Your task to perform on an android device: Show me popular videos on Youtube Image 0: 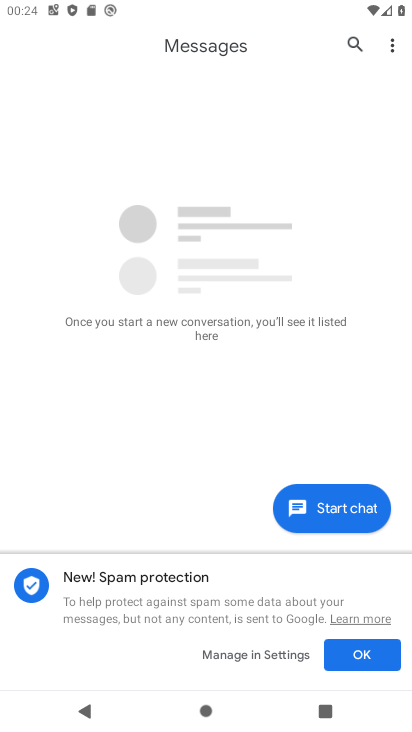
Step 0: press home button
Your task to perform on an android device: Show me popular videos on Youtube Image 1: 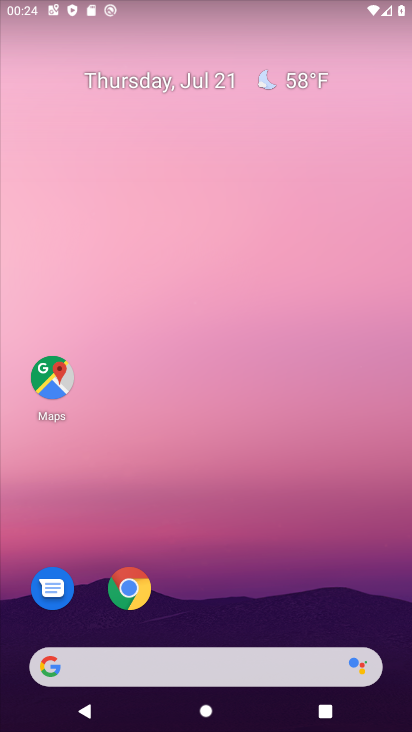
Step 1: drag from (202, 591) to (227, 0)
Your task to perform on an android device: Show me popular videos on Youtube Image 2: 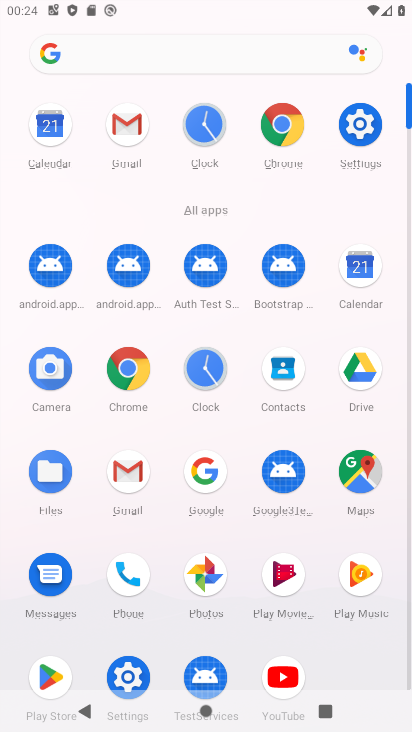
Step 2: click (277, 679)
Your task to perform on an android device: Show me popular videos on Youtube Image 3: 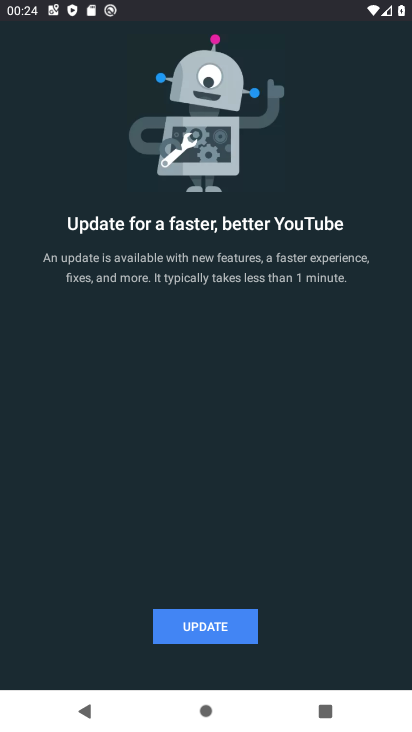
Step 3: click (200, 628)
Your task to perform on an android device: Show me popular videos on Youtube Image 4: 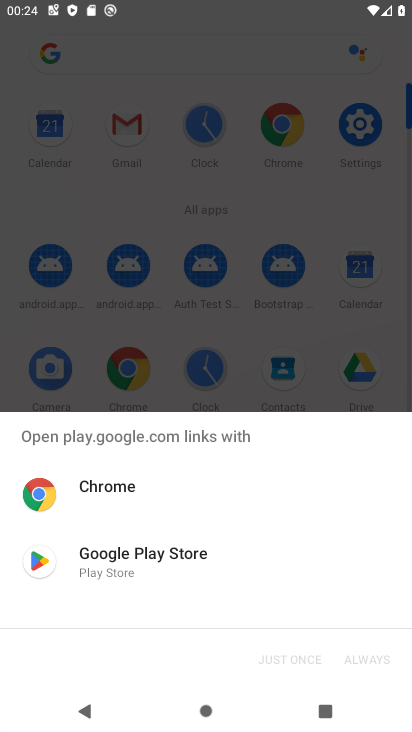
Step 4: click (135, 579)
Your task to perform on an android device: Show me popular videos on Youtube Image 5: 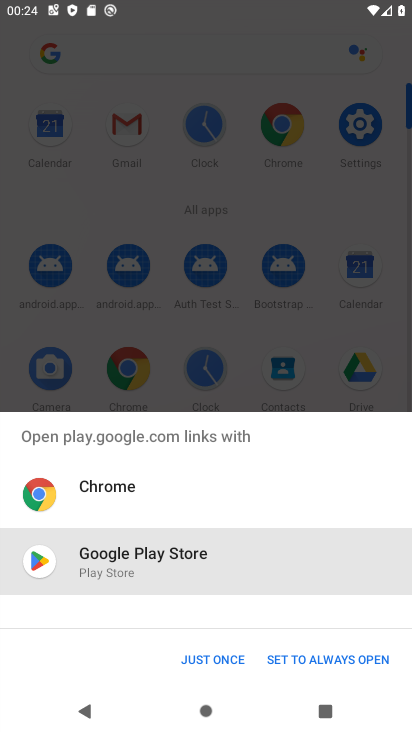
Step 5: click (212, 653)
Your task to perform on an android device: Show me popular videos on Youtube Image 6: 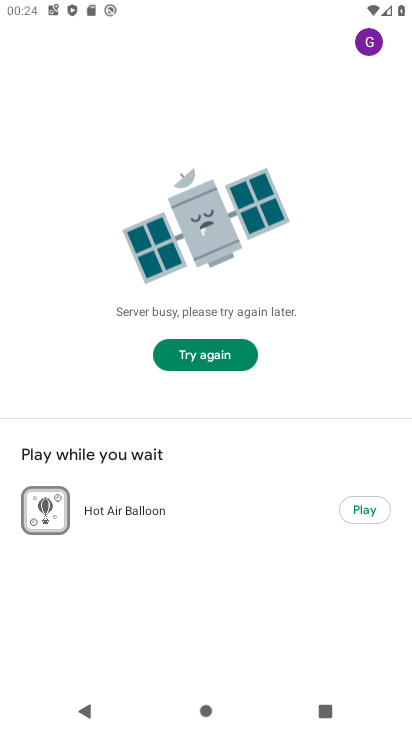
Step 6: click (218, 345)
Your task to perform on an android device: Show me popular videos on Youtube Image 7: 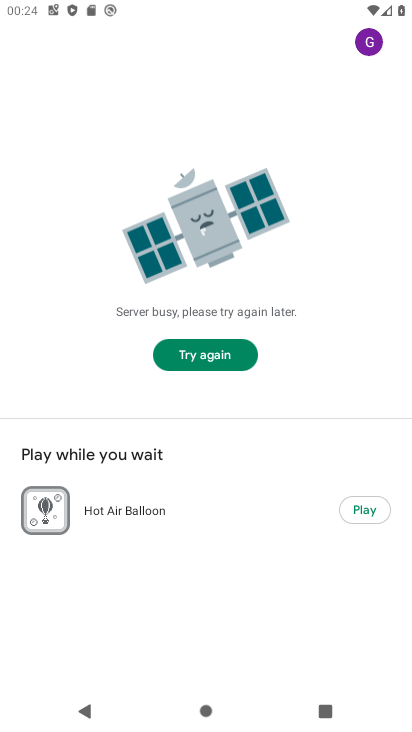
Step 7: press home button
Your task to perform on an android device: Show me popular videos on Youtube Image 8: 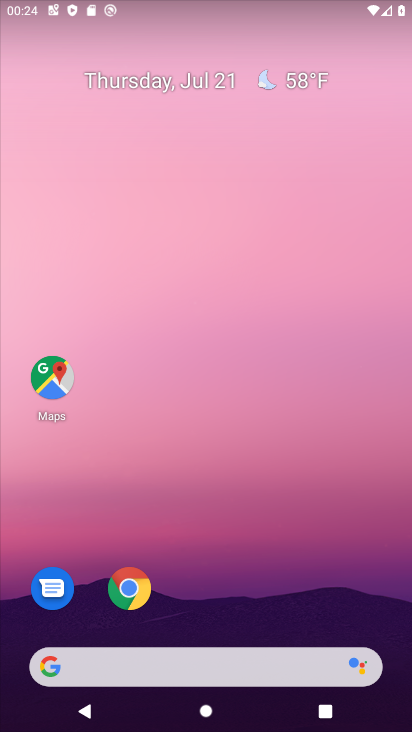
Step 8: drag from (206, 643) to (233, 133)
Your task to perform on an android device: Show me popular videos on Youtube Image 9: 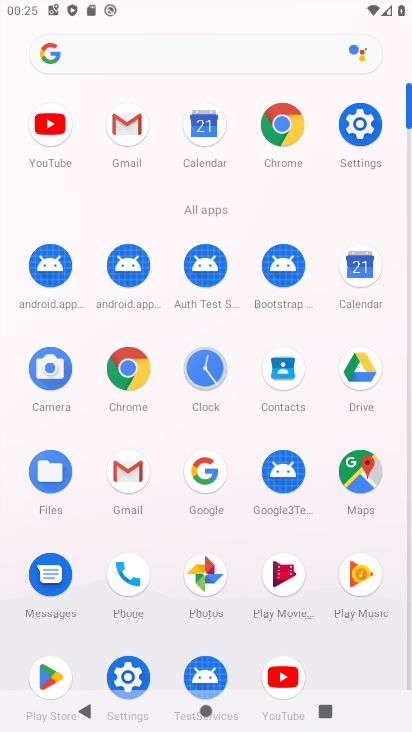
Step 9: click (284, 673)
Your task to perform on an android device: Show me popular videos on Youtube Image 10: 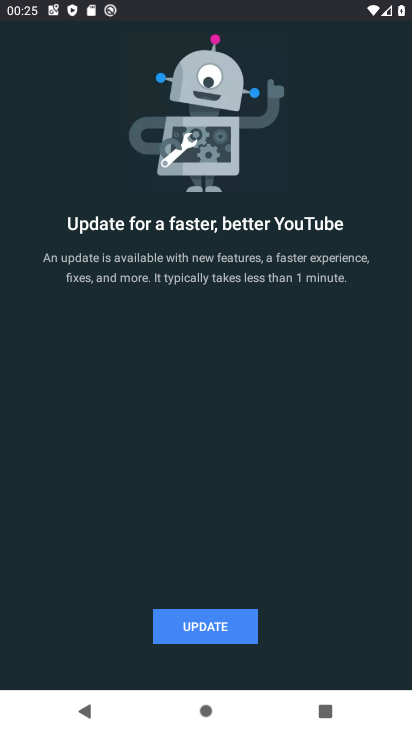
Step 10: click (237, 635)
Your task to perform on an android device: Show me popular videos on Youtube Image 11: 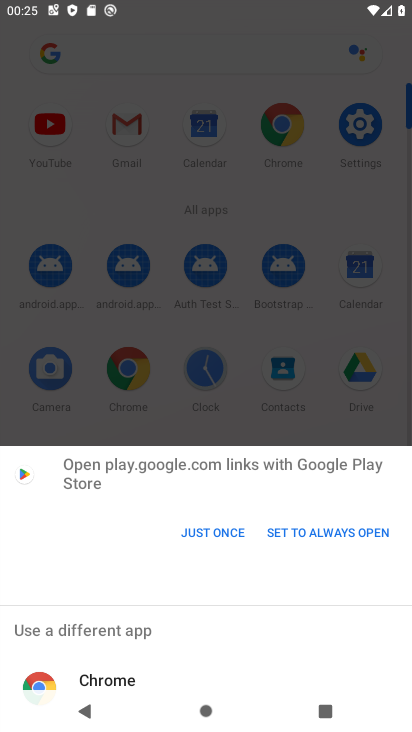
Step 11: click (215, 532)
Your task to perform on an android device: Show me popular videos on Youtube Image 12: 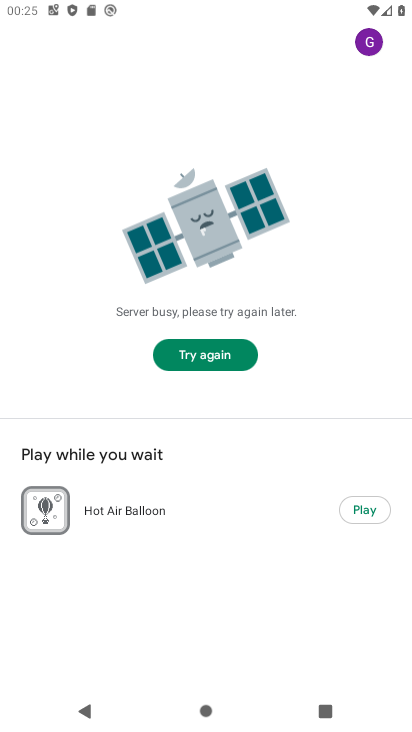
Step 12: click (204, 354)
Your task to perform on an android device: Show me popular videos on Youtube Image 13: 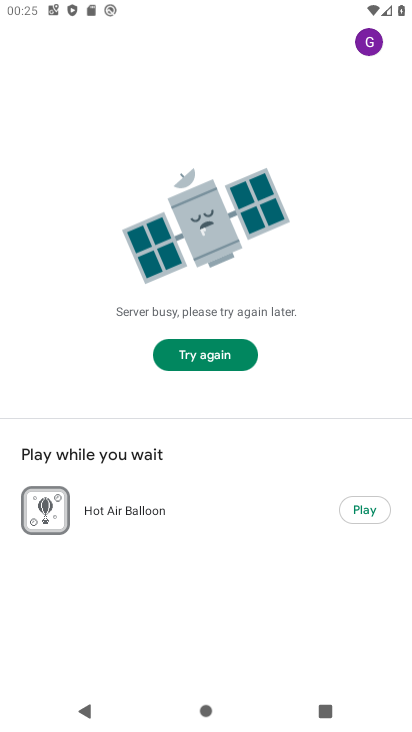
Step 13: click (204, 353)
Your task to perform on an android device: Show me popular videos on Youtube Image 14: 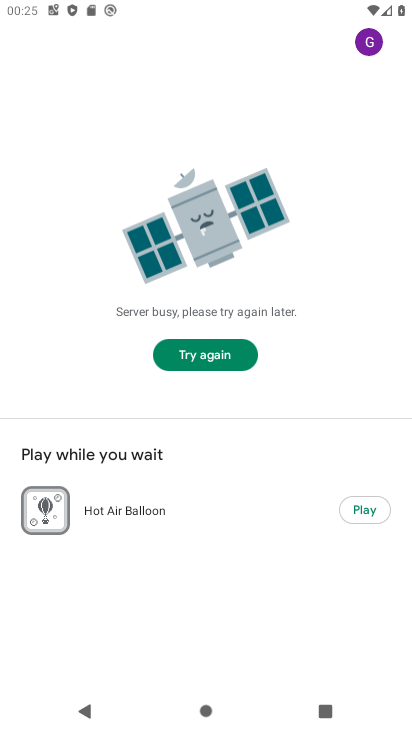
Step 14: click (193, 353)
Your task to perform on an android device: Show me popular videos on Youtube Image 15: 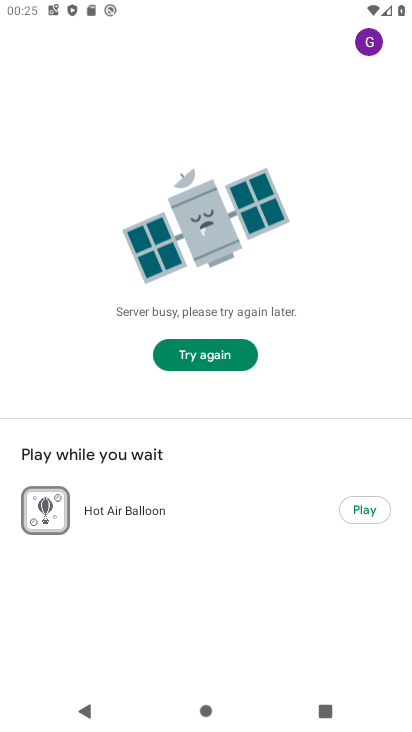
Step 15: click (221, 350)
Your task to perform on an android device: Show me popular videos on Youtube Image 16: 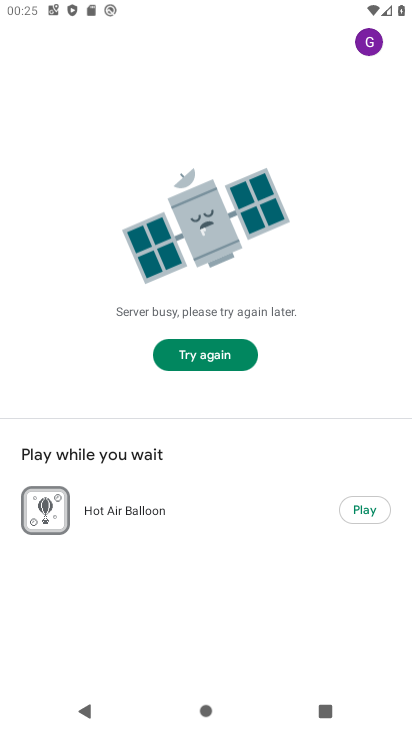
Step 16: click (217, 343)
Your task to perform on an android device: Show me popular videos on Youtube Image 17: 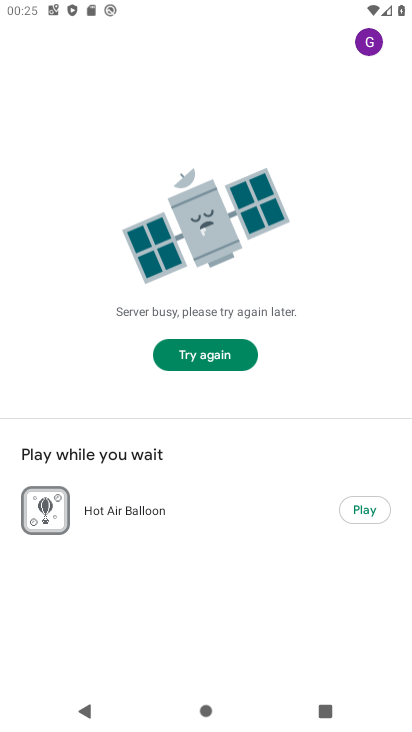
Step 17: task complete